Your task to perform on an android device: snooze an email in the gmail app Image 0: 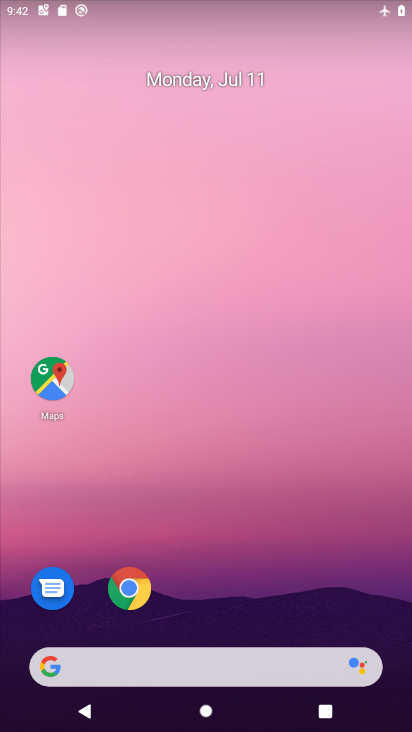
Step 0: drag from (234, 605) to (220, 139)
Your task to perform on an android device: snooze an email in the gmail app Image 1: 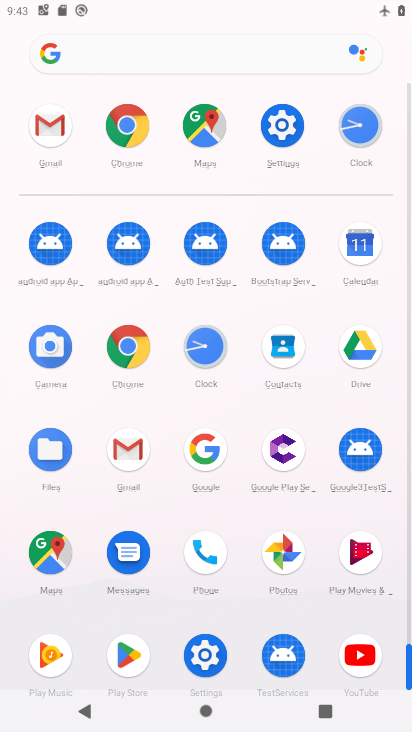
Step 1: click (54, 115)
Your task to perform on an android device: snooze an email in the gmail app Image 2: 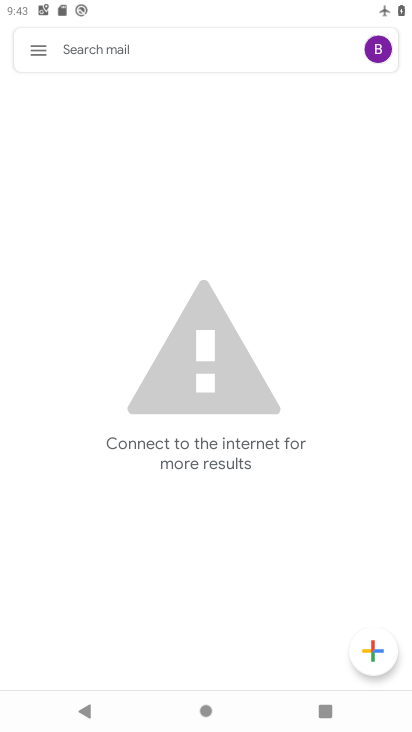
Step 2: click (36, 44)
Your task to perform on an android device: snooze an email in the gmail app Image 3: 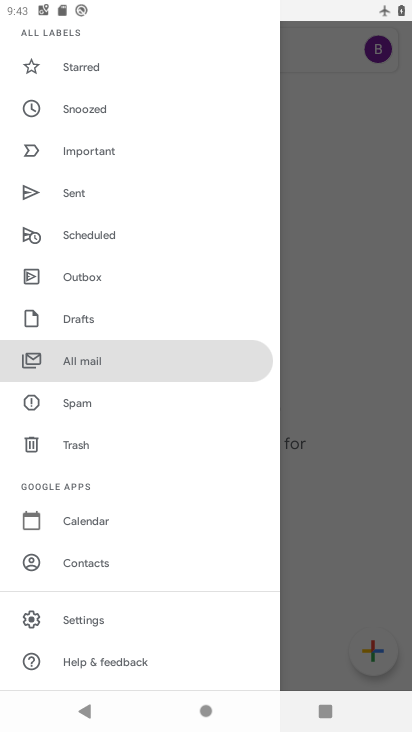
Step 3: click (86, 111)
Your task to perform on an android device: snooze an email in the gmail app Image 4: 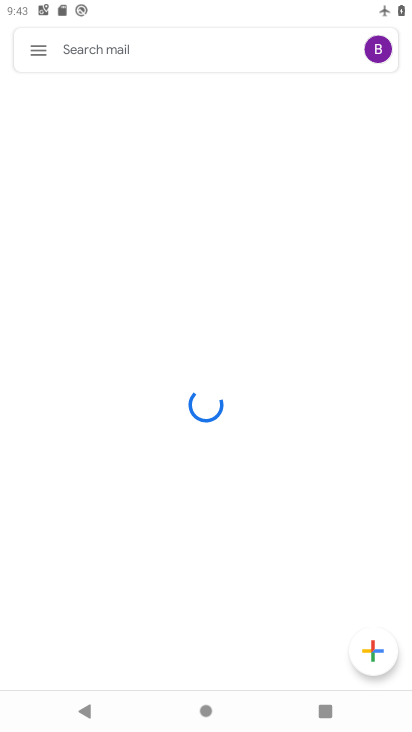
Step 4: task complete